Your task to perform on an android device: toggle pop-ups in chrome Image 0: 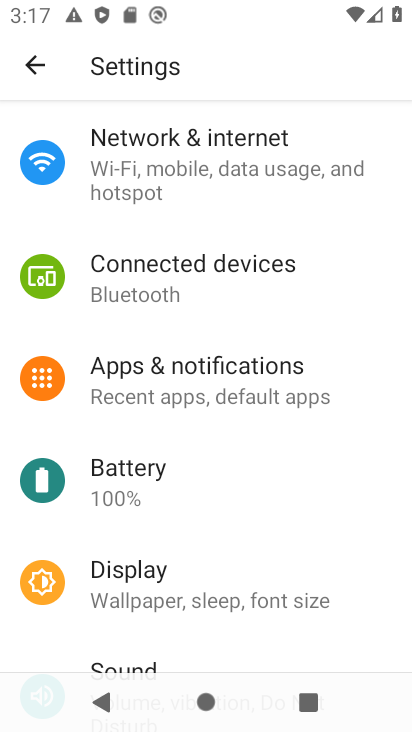
Step 0: press home button
Your task to perform on an android device: toggle pop-ups in chrome Image 1: 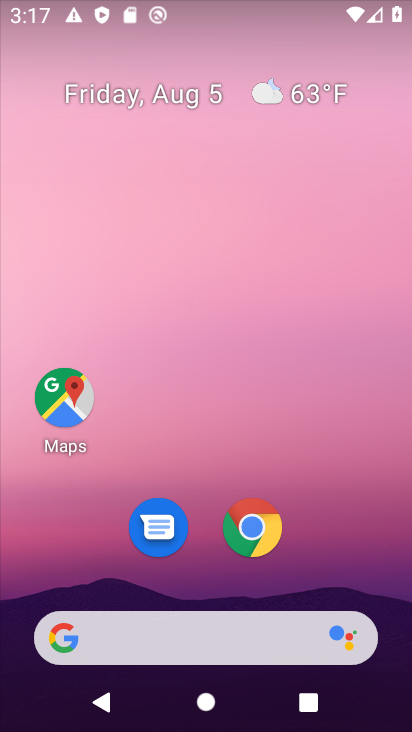
Step 1: click (256, 529)
Your task to perform on an android device: toggle pop-ups in chrome Image 2: 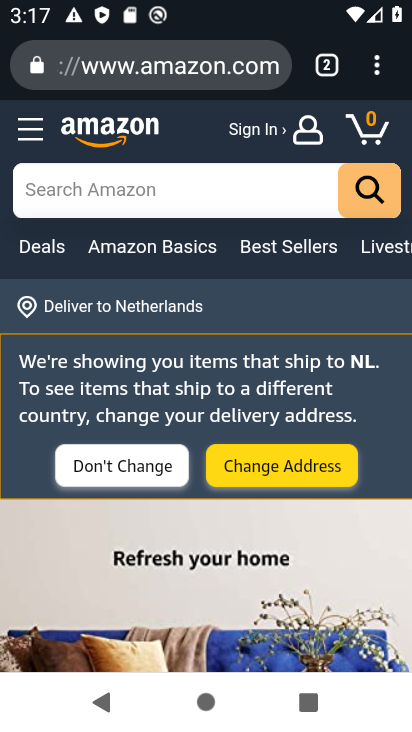
Step 2: click (376, 74)
Your task to perform on an android device: toggle pop-ups in chrome Image 3: 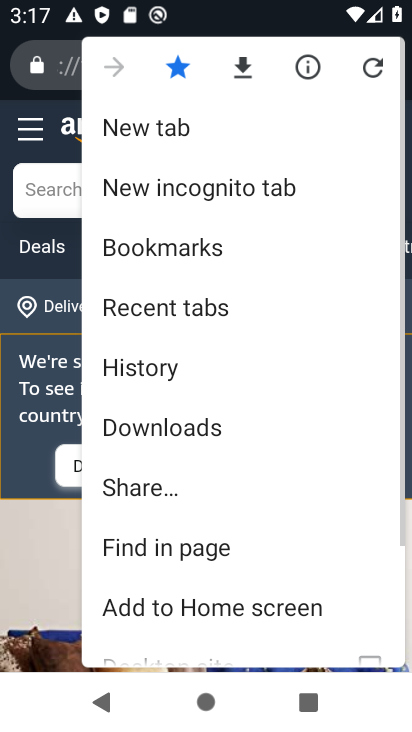
Step 3: drag from (202, 598) to (174, 261)
Your task to perform on an android device: toggle pop-ups in chrome Image 4: 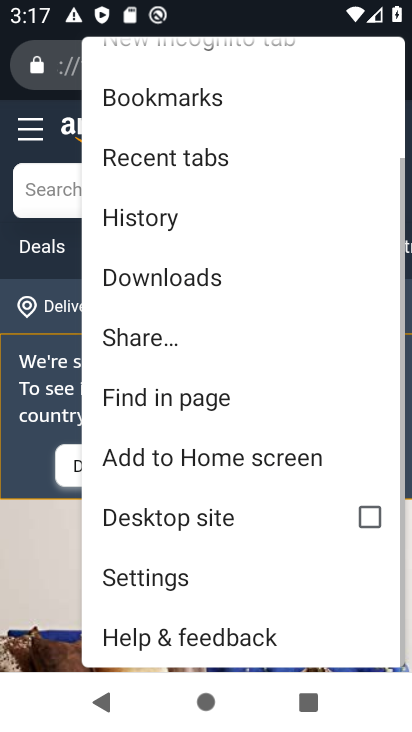
Step 4: click (157, 572)
Your task to perform on an android device: toggle pop-ups in chrome Image 5: 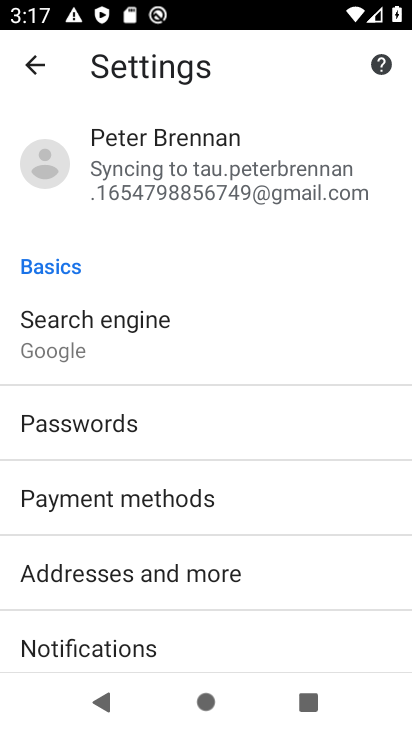
Step 5: drag from (145, 585) to (135, 329)
Your task to perform on an android device: toggle pop-ups in chrome Image 6: 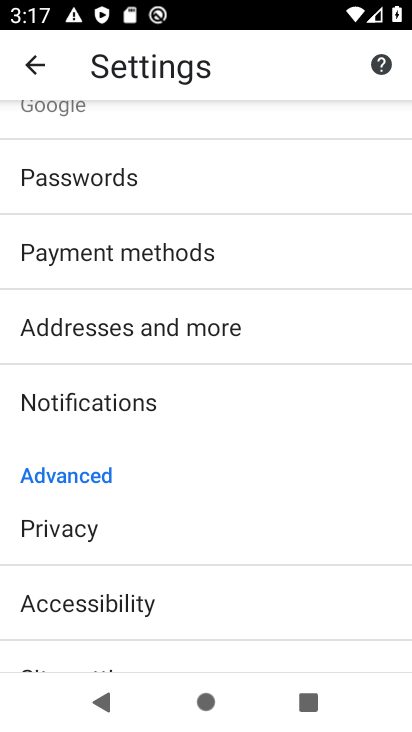
Step 6: drag from (99, 614) to (126, 334)
Your task to perform on an android device: toggle pop-ups in chrome Image 7: 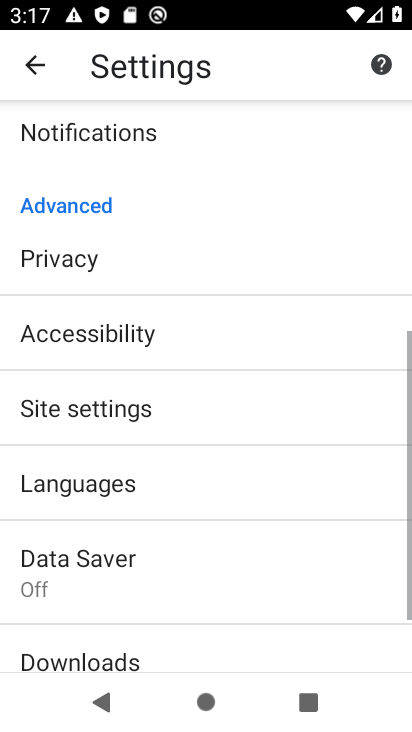
Step 7: drag from (106, 622) to (121, 369)
Your task to perform on an android device: toggle pop-ups in chrome Image 8: 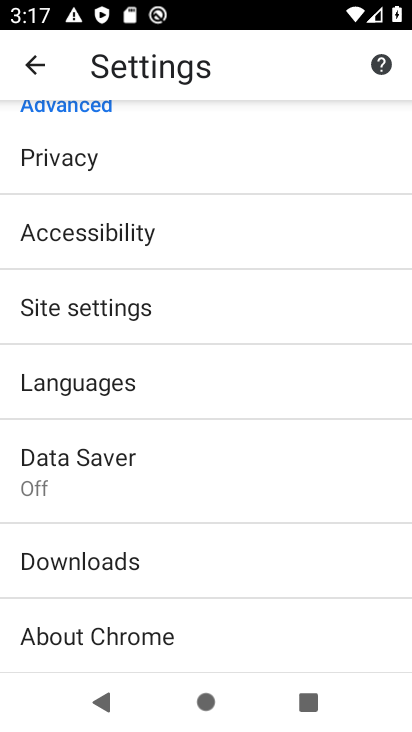
Step 8: drag from (122, 526) to (130, 285)
Your task to perform on an android device: toggle pop-ups in chrome Image 9: 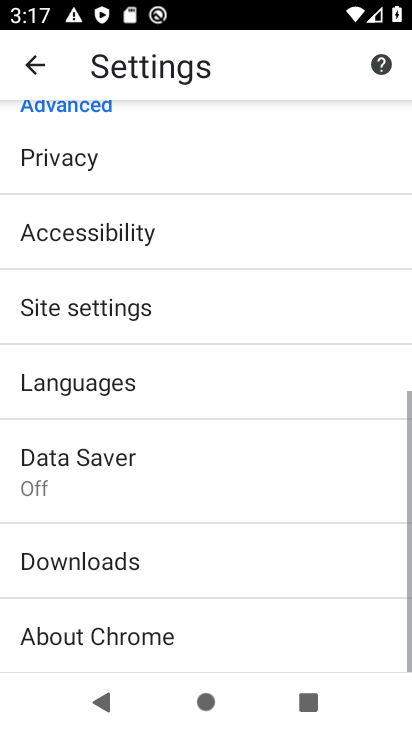
Step 9: drag from (96, 619) to (82, 351)
Your task to perform on an android device: toggle pop-ups in chrome Image 10: 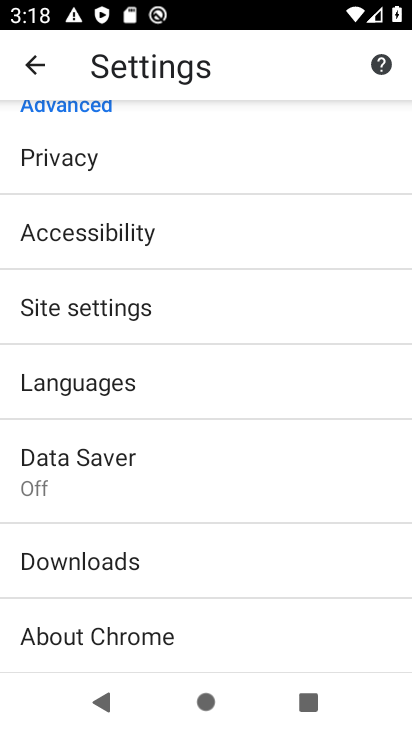
Step 10: click (70, 314)
Your task to perform on an android device: toggle pop-ups in chrome Image 11: 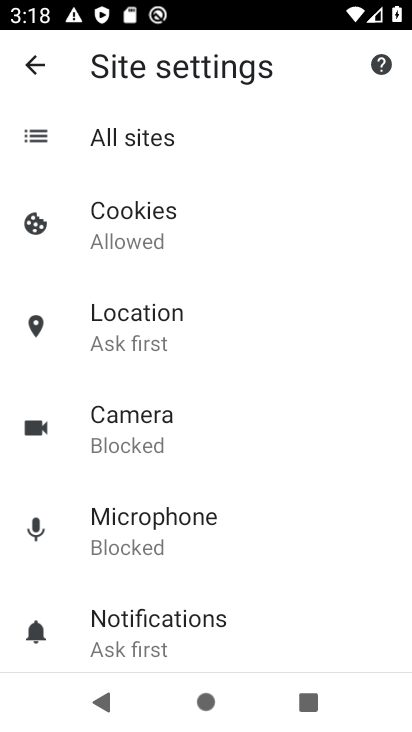
Step 11: drag from (131, 581) to (138, 302)
Your task to perform on an android device: toggle pop-ups in chrome Image 12: 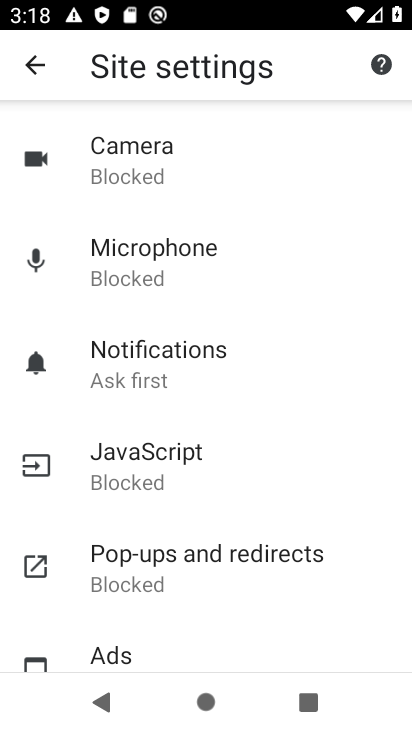
Step 12: click (136, 564)
Your task to perform on an android device: toggle pop-ups in chrome Image 13: 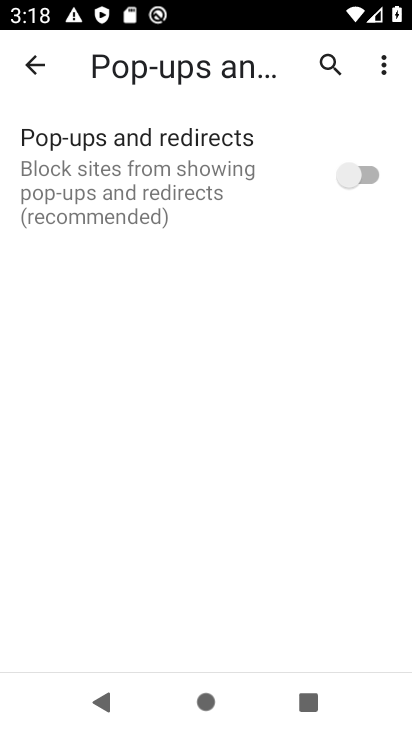
Step 13: click (368, 171)
Your task to perform on an android device: toggle pop-ups in chrome Image 14: 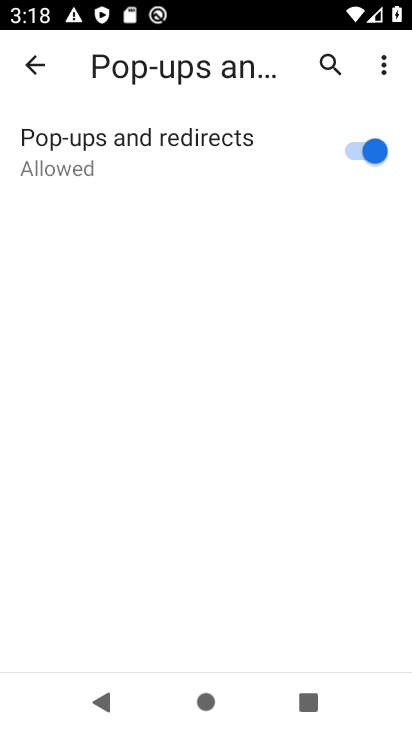
Step 14: task complete